Your task to perform on an android device: Add "usb-b" to the cart on newegg.com Image 0: 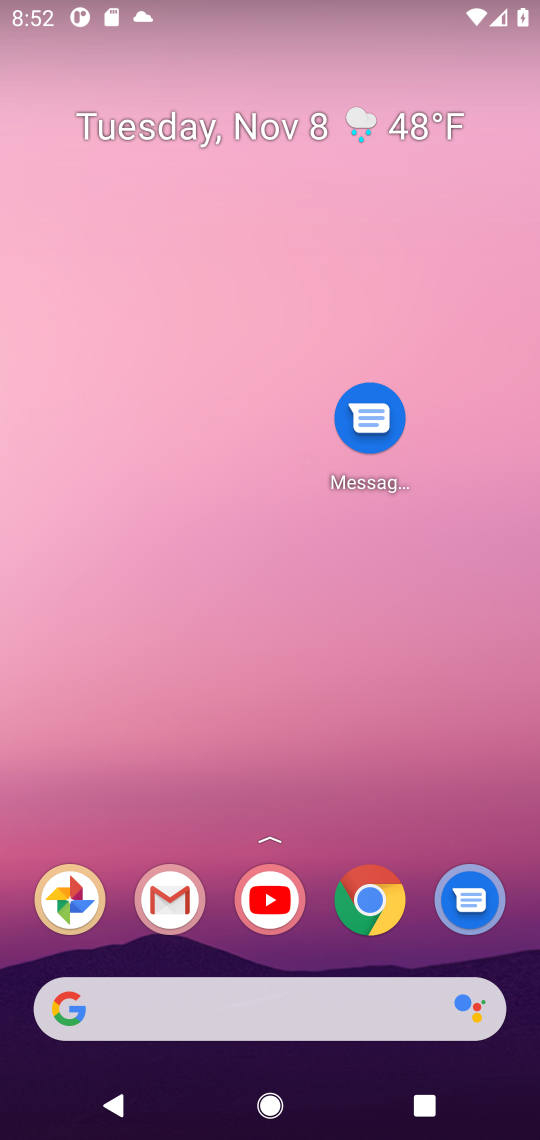
Step 0: click (243, 358)
Your task to perform on an android device: Add "usb-b" to the cart on newegg.com Image 1: 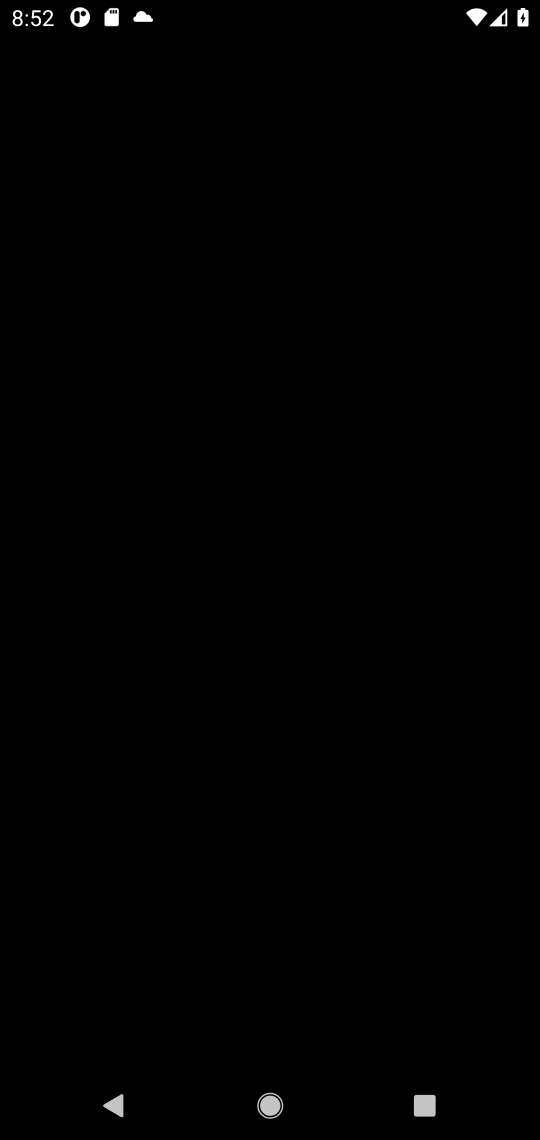
Step 1: drag from (201, 965) to (302, 353)
Your task to perform on an android device: Add "usb-b" to the cart on newegg.com Image 2: 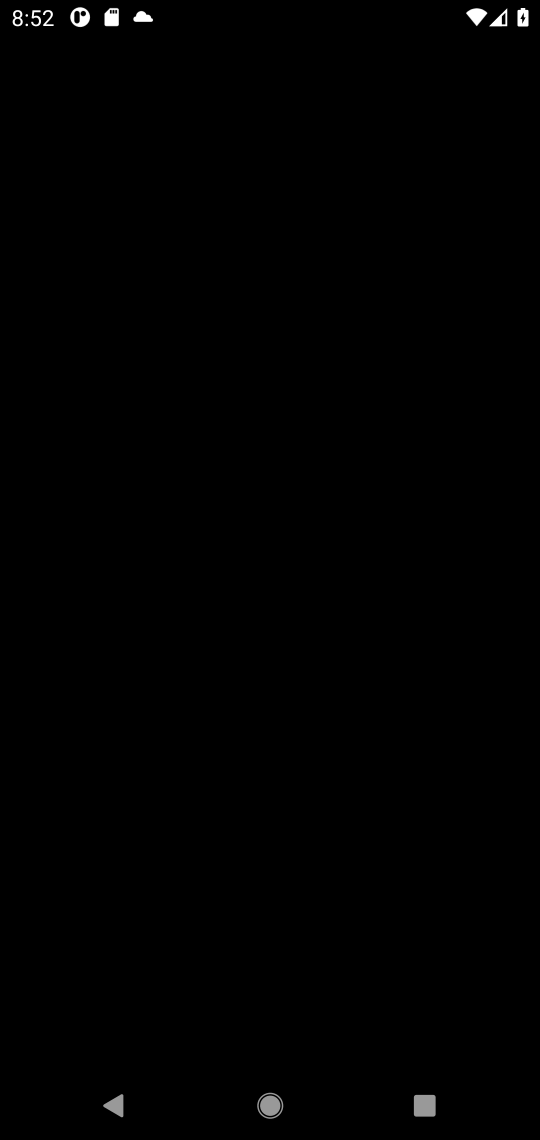
Step 2: press home button
Your task to perform on an android device: Add "usb-b" to the cart on newegg.com Image 3: 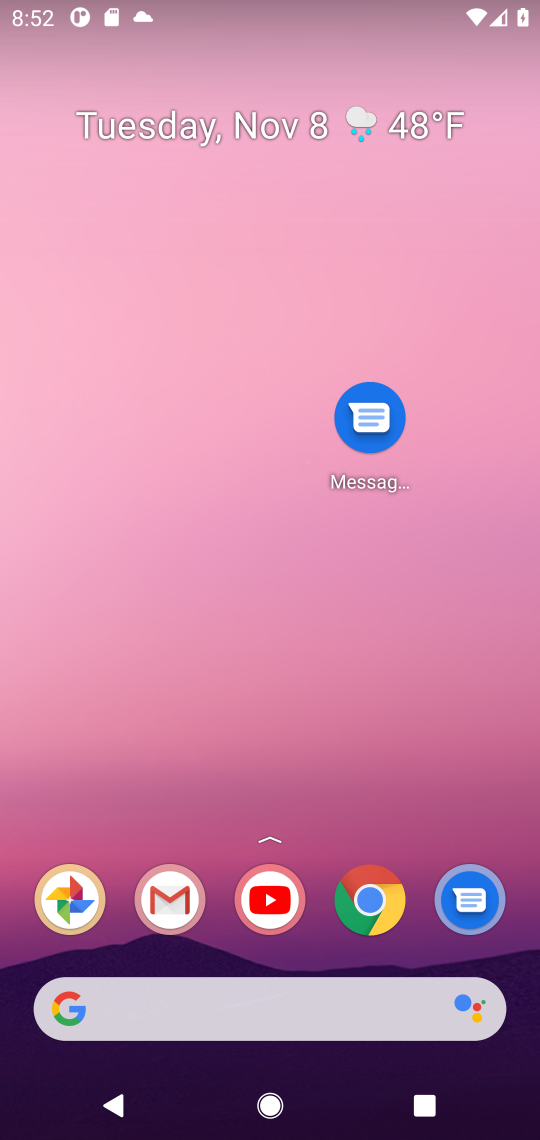
Step 3: drag from (264, 969) to (357, 255)
Your task to perform on an android device: Add "usb-b" to the cart on newegg.com Image 4: 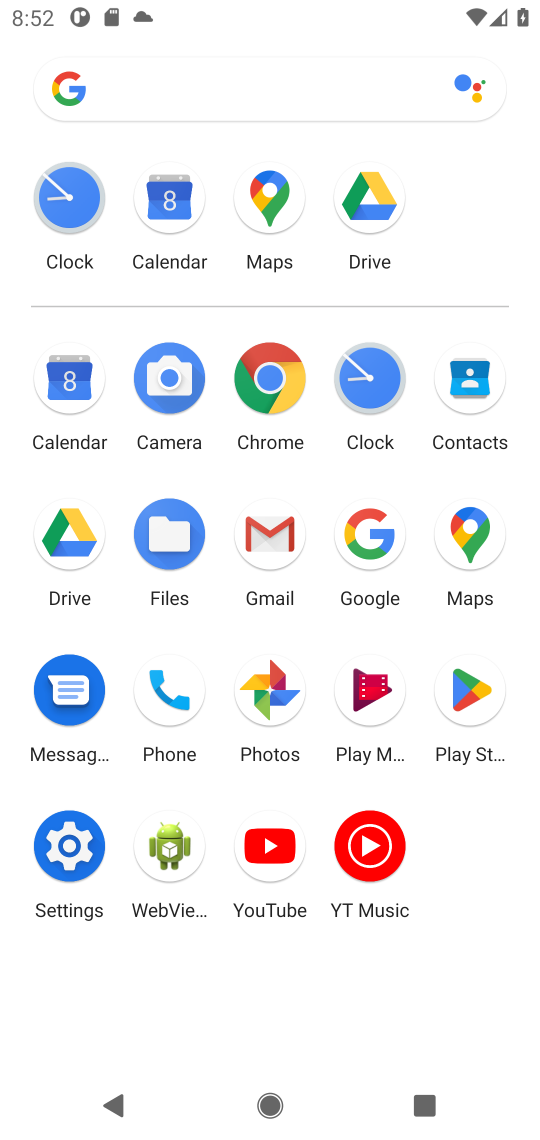
Step 4: click (363, 523)
Your task to perform on an android device: Add "usb-b" to the cart on newegg.com Image 5: 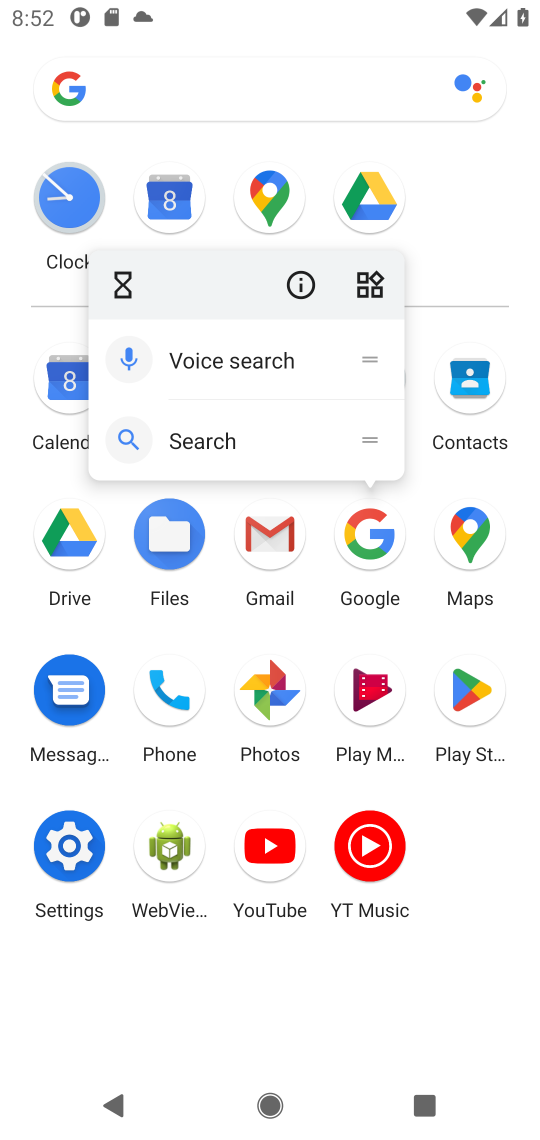
Step 5: click (365, 523)
Your task to perform on an android device: Add "usb-b" to the cart on newegg.com Image 6: 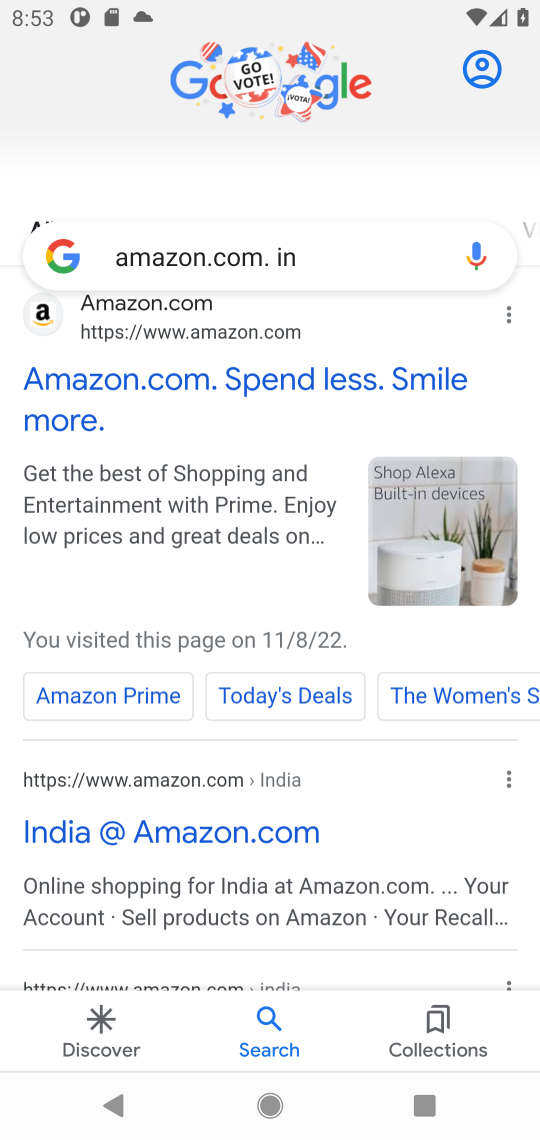
Step 6: click (377, 238)
Your task to perform on an android device: Add "usb-b" to the cart on newegg.com Image 7: 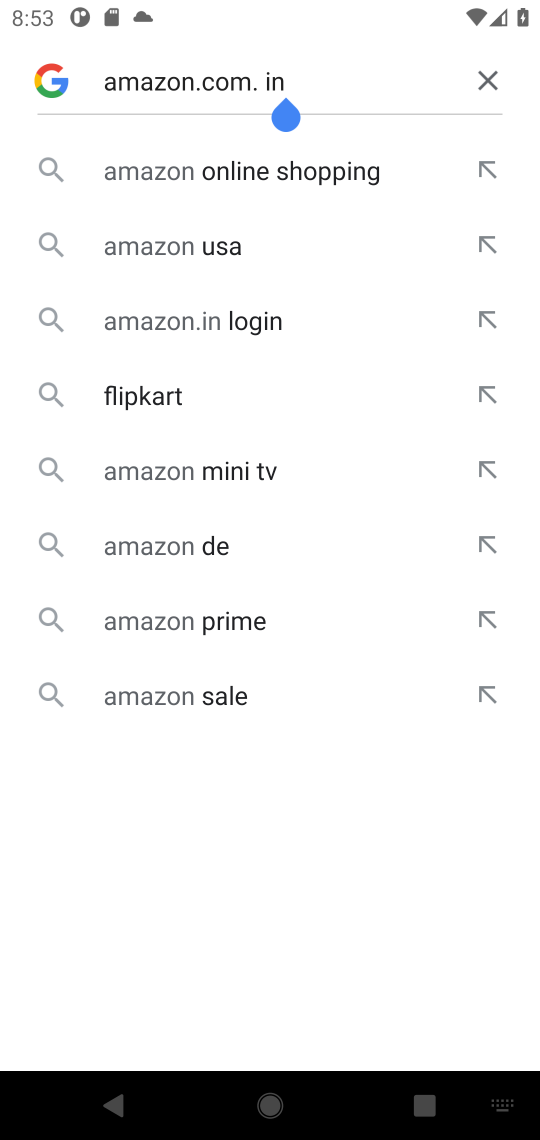
Step 7: click (486, 72)
Your task to perform on an android device: Add "usb-b" to the cart on newegg.com Image 8: 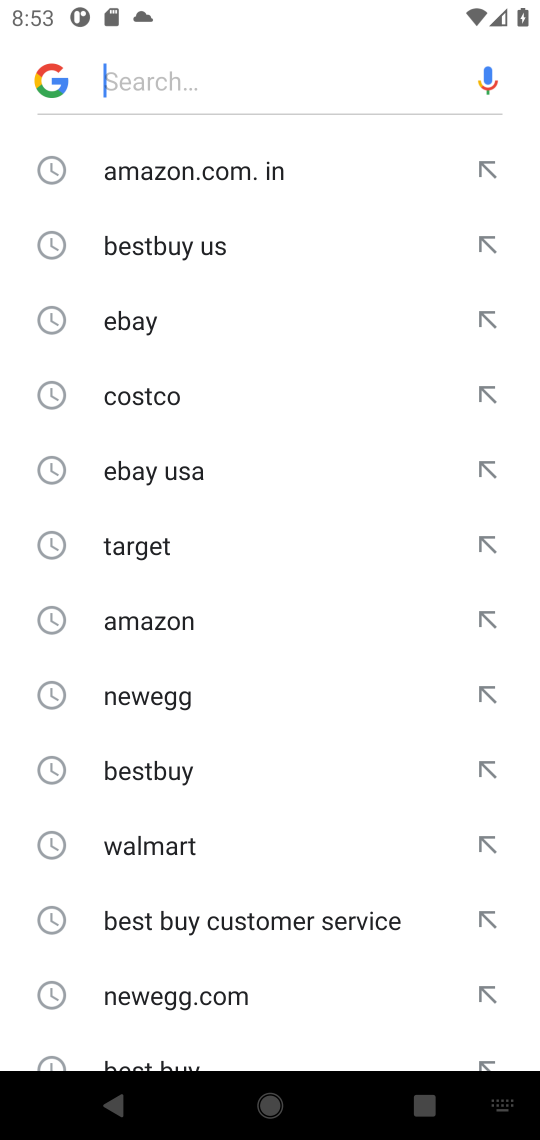
Step 8: click (184, 683)
Your task to perform on an android device: Add "usb-b" to the cart on newegg.com Image 9: 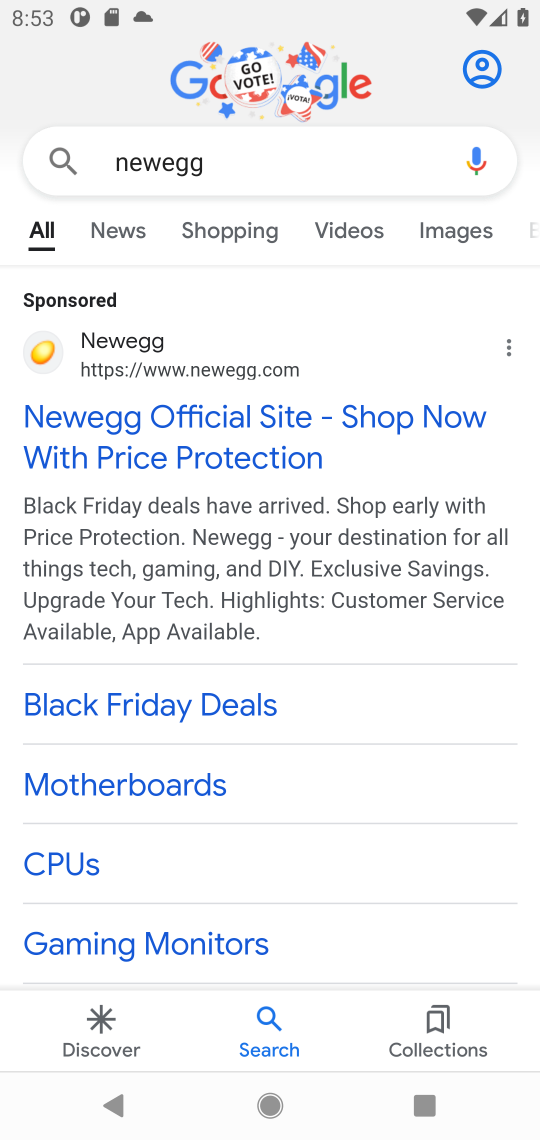
Step 9: click (45, 350)
Your task to perform on an android device: Add "usb-b" to the cart on newegg.com Image 10: 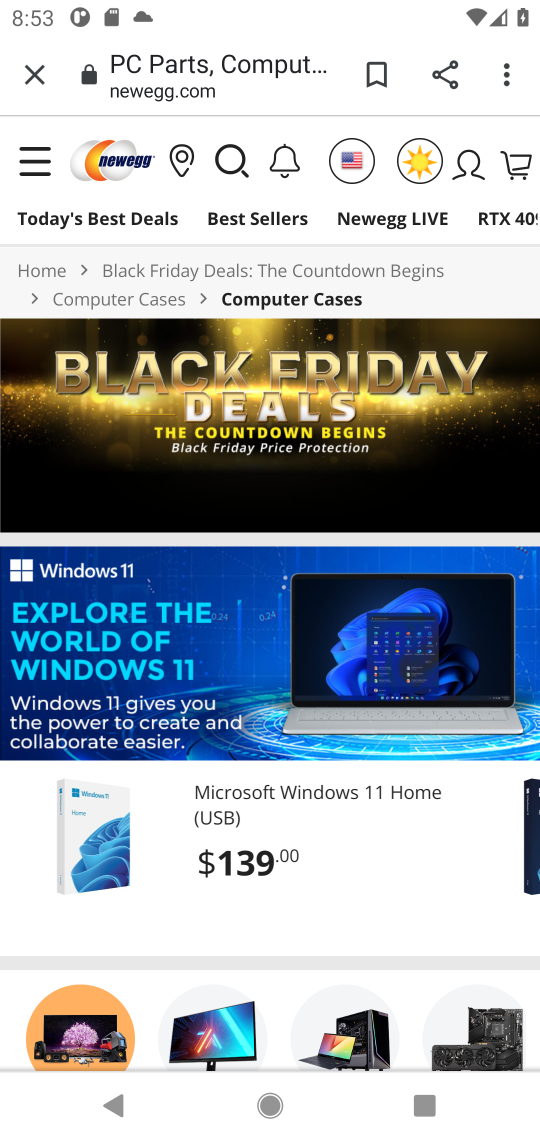
Step 10: click (237, 150)
Your task to perform on an android device: Add "usb-b" to the cart on newegg.com Image 11: 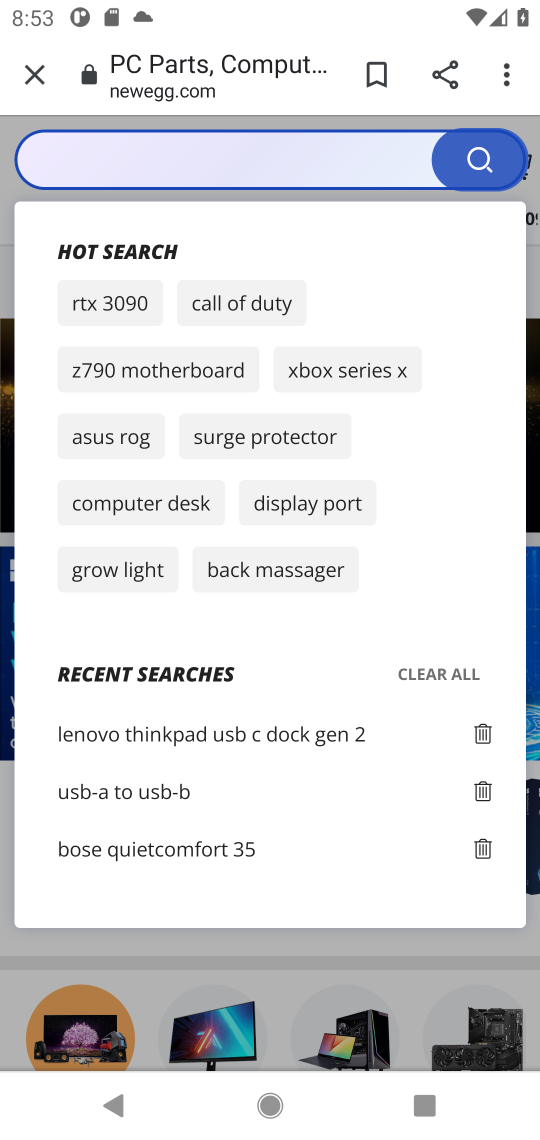
Step 11: click (190, 132)
Your task to perform on an android device: Add "usb-b" to the cart on newegg.com Image 12: 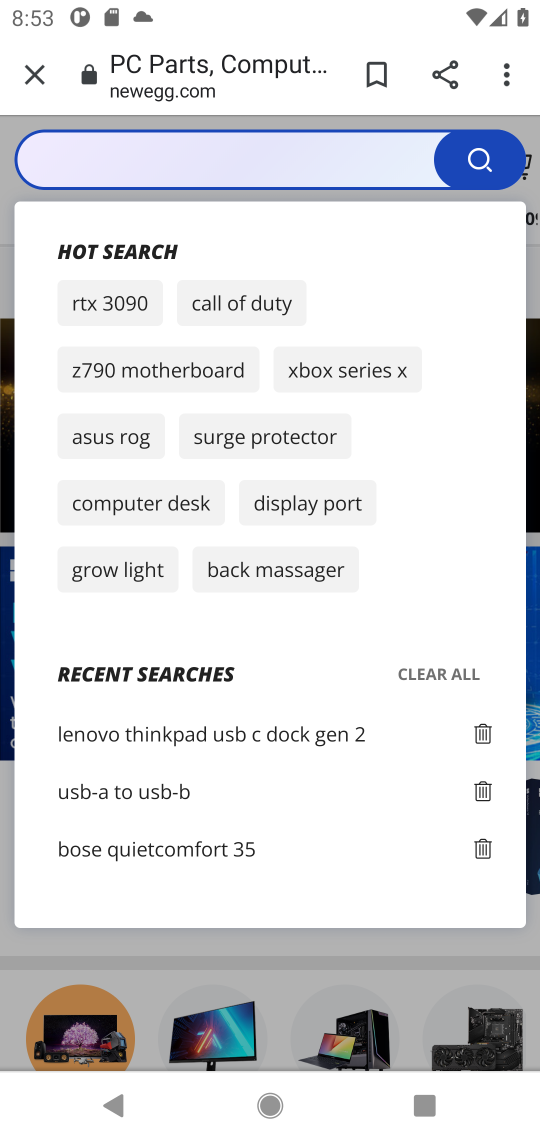
Step 12: type "usb-b "
Your task to perform on an android device: Add "usb-b" to the cart on newegg.com Image 13: 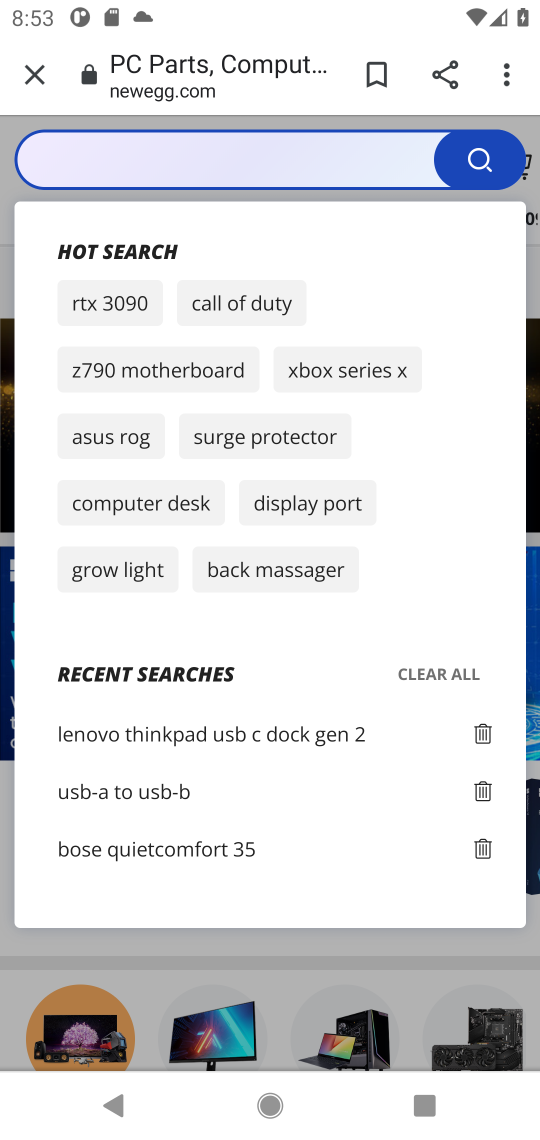
Step 13: click (220, 146)
Your task to perform on an android device: Add "usb-b" to the cart on newegg.com Image 14: 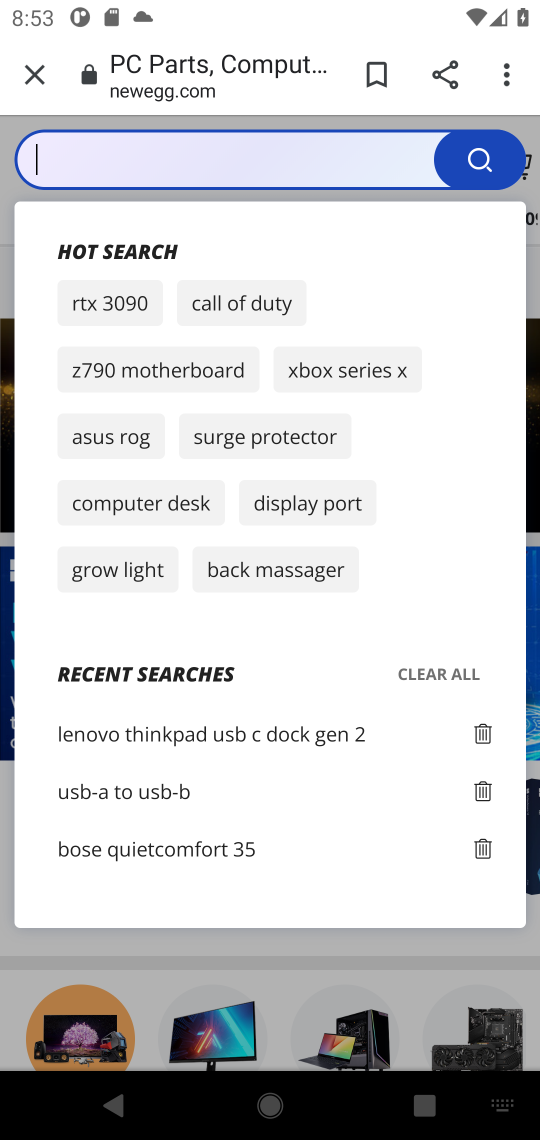
Step 14: type "usb-b "
Your task to perform on an android device: Add "usb-b" to the cart on newegg.com Image 15: 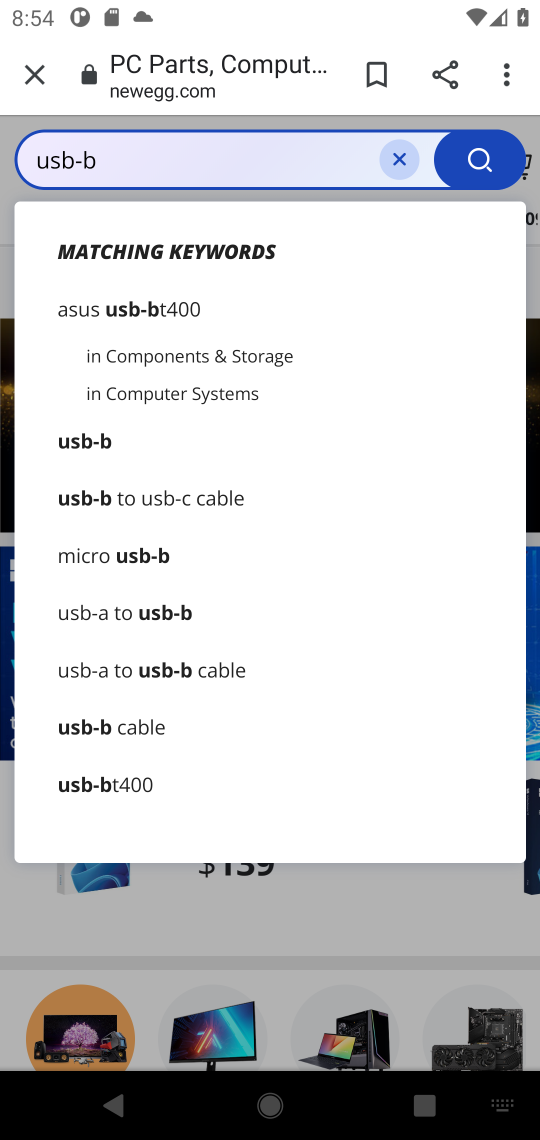
Step 15: click (108, 434)
Your task to perform on an android device: Add "usb-b" to the cart on newegg.com Image 16: 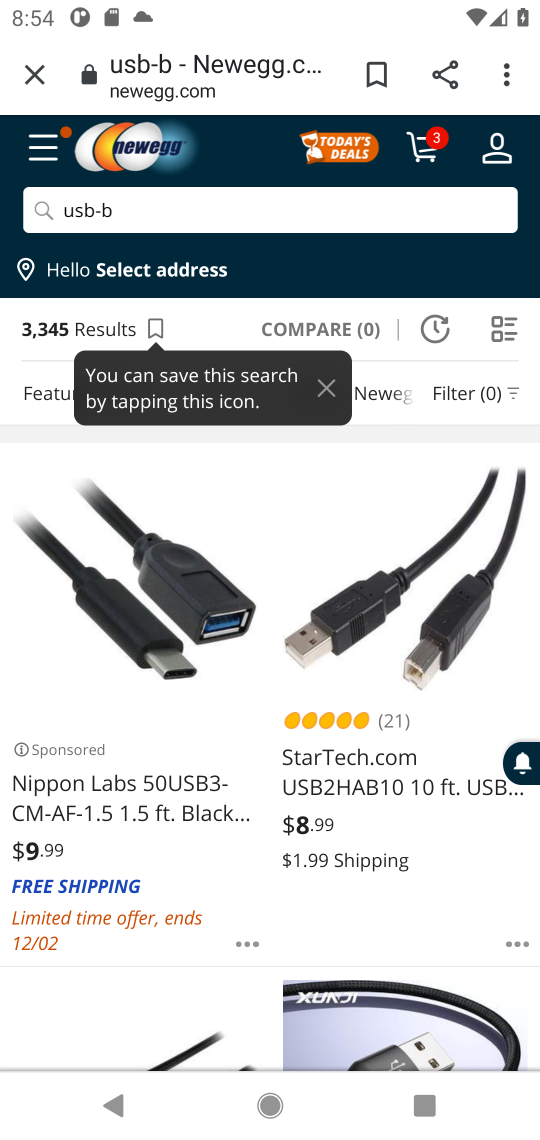
Step 16: click (135, 794)
Your task to perform on an android device: Add "usb-b" to the cart on newegg.com Image 17: 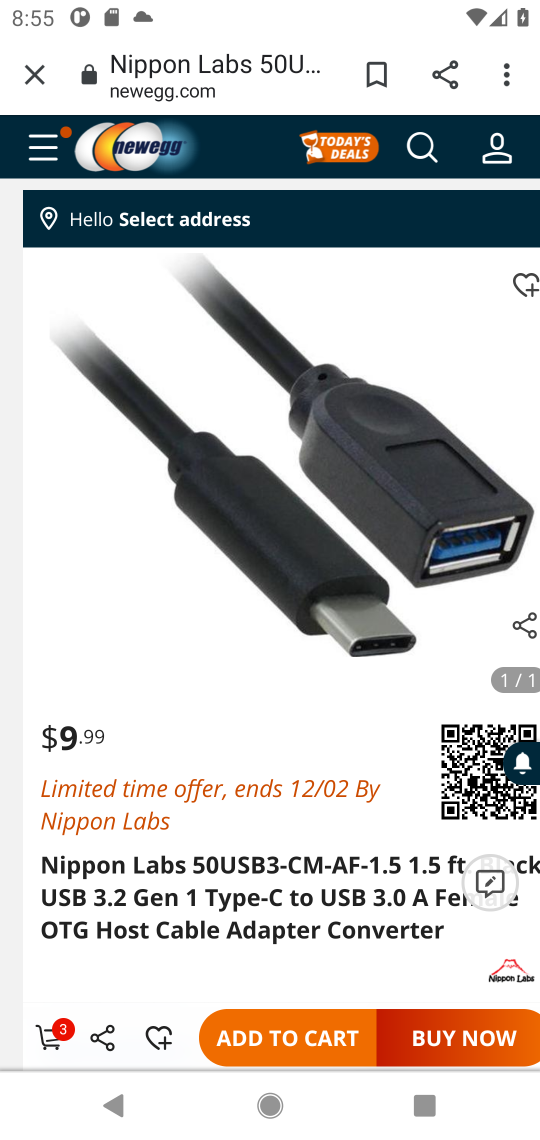
Step 17: click (306, 1039)
Your task to perform on an android device: Add "usb-b" to the cart on newegg.com Image 18: 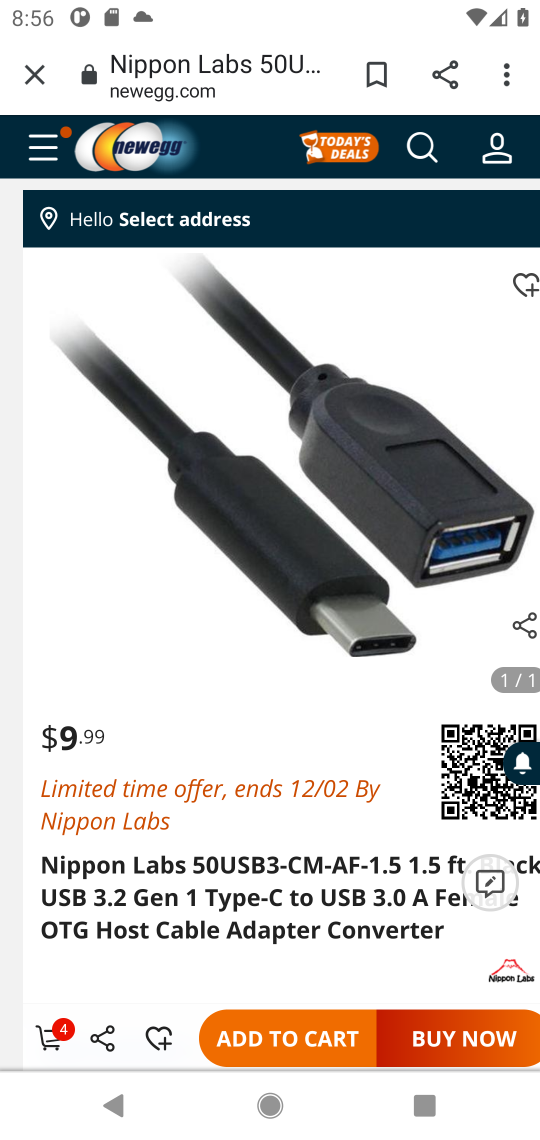
Step 18: click (285, 1044)
Your task to perform on an android device: Add "usb-b" to the cart on newegg.com Image 19: 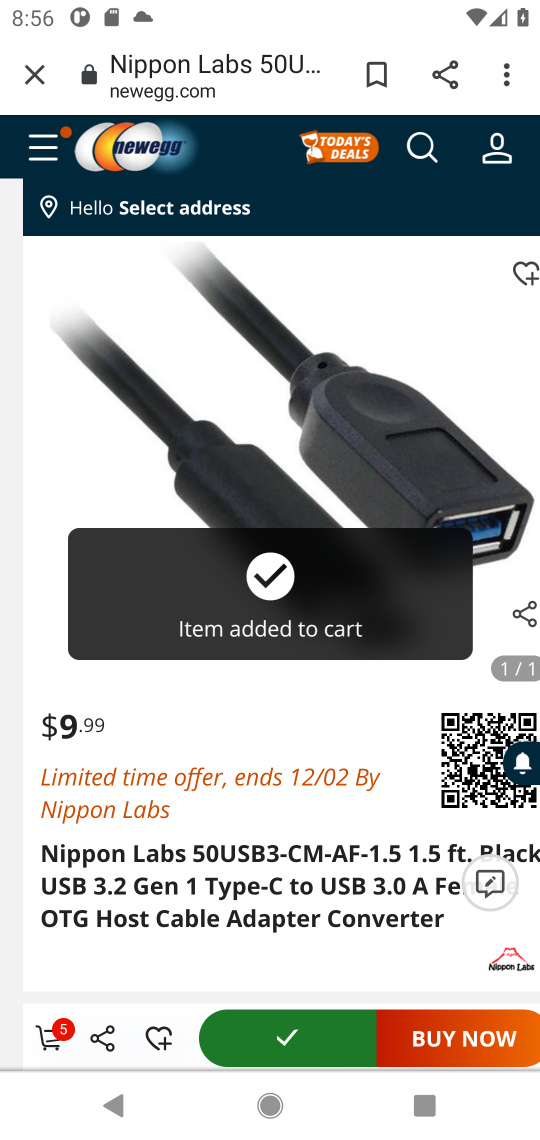
Step 19: task complete